Your task to perform on an android device: What's the weather going to be tomorrow? Image 0: 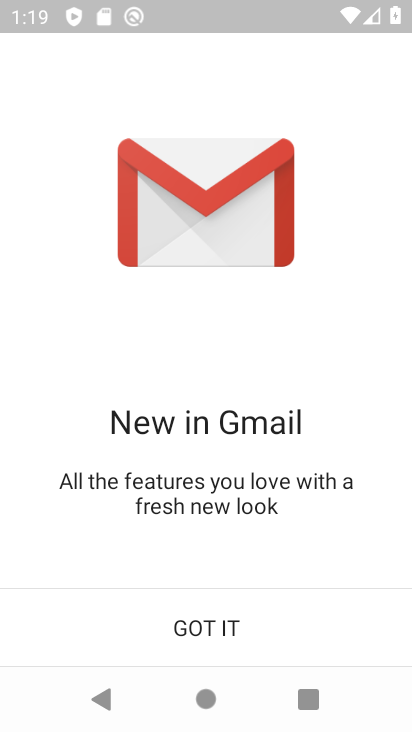
Step 0: click (172, 634)
Your task to perform on an android device: What's the weather going to be tomorrow? Image 1: 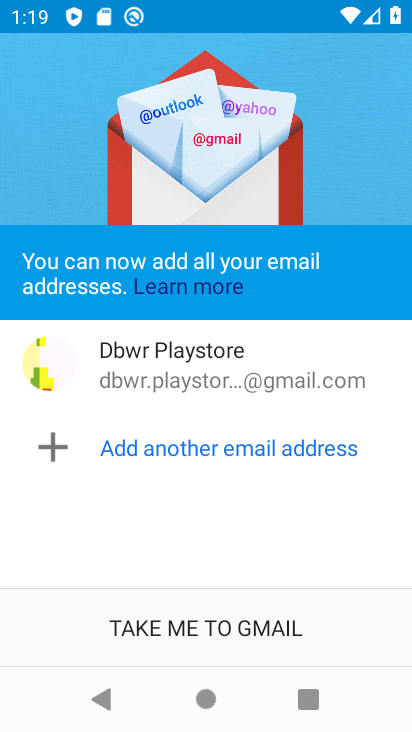
Step 1: click (294, 639)
Your task to perform on an android device: What's the weather going to be tomorrow? Image 2: 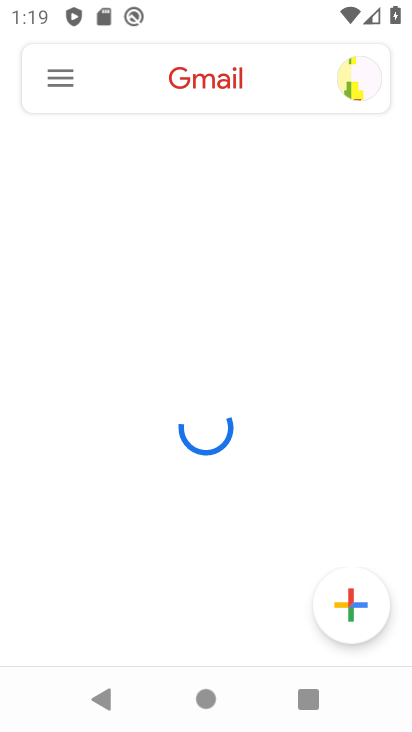
Step 2: press home button
Your task to perform on an android device: What's the weather going to be tomorrow? Image 3: 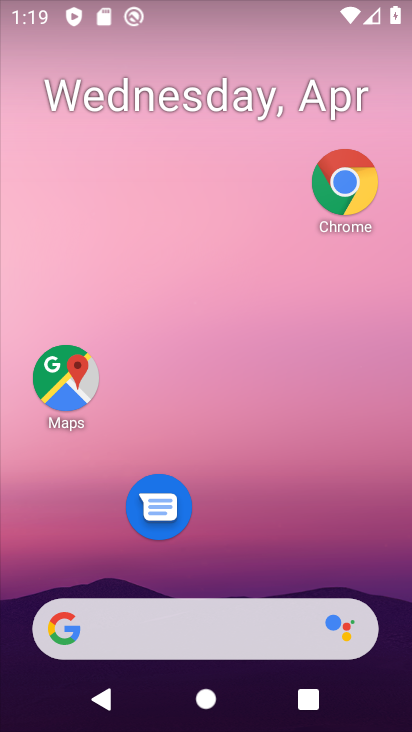
Step 3: click (274, 615)
Your task to perform on an android device: What's the weather going to be tomorrow? Image 4: 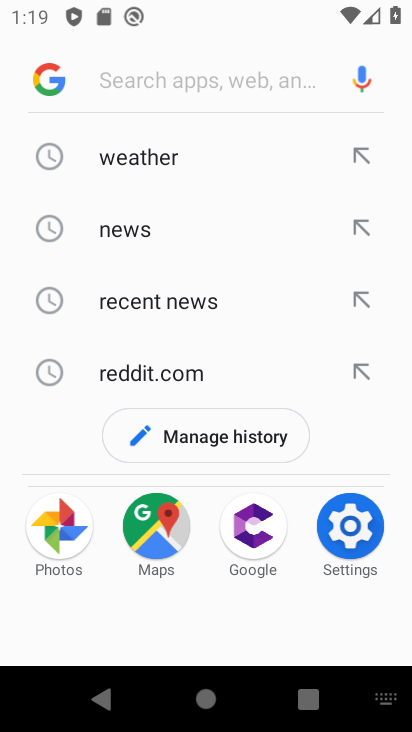
Step 4: click (213, 81)
Your task to perform on an android device: What's the weather going to be tomorrow? Image 5: 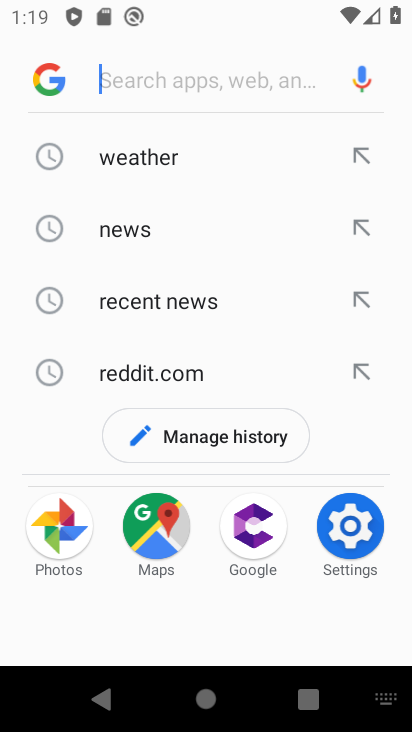
Step 5: click (213, 81)
Your task to perform on an android device: What's the weather going to be tomorrow? Image 6: 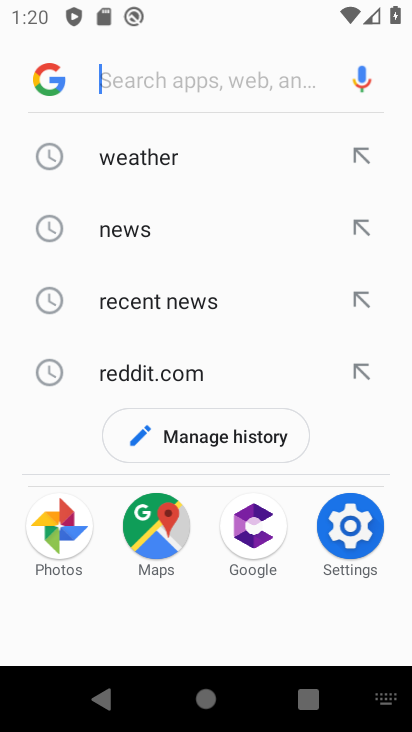
Step 6: click (196, 75)
Your task to perform on an android device: What's the weather going to be tomorrow? Image 7: 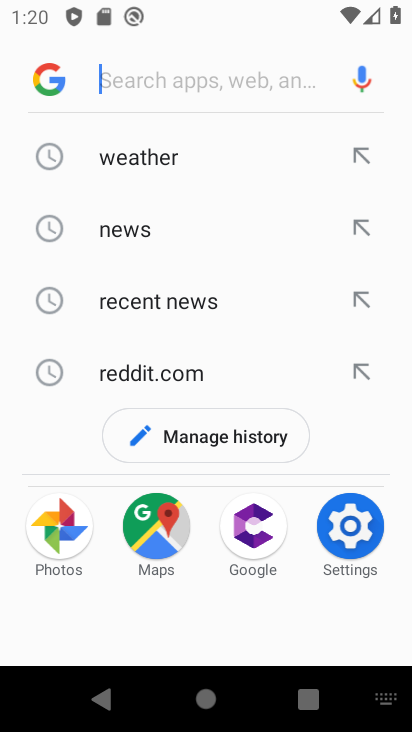
Step 7: click (196, 75)
Your task to perform on an android device: What's the weather going to be tomorrow? Image 8: 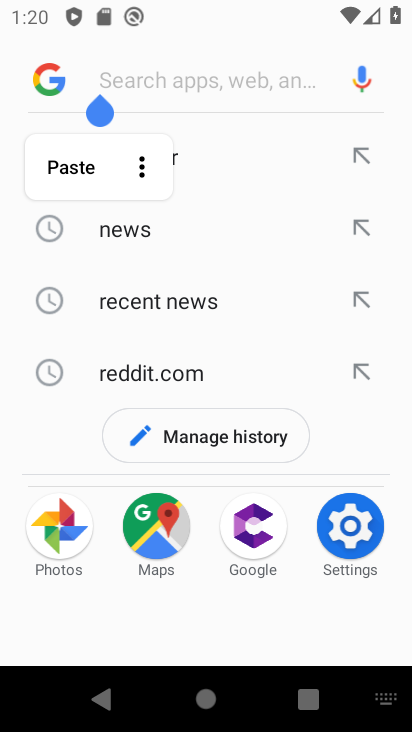
Step 8: click (51, 171)
Your task to perform on an android device: What's the weather going to be tomorrow? Image 9: 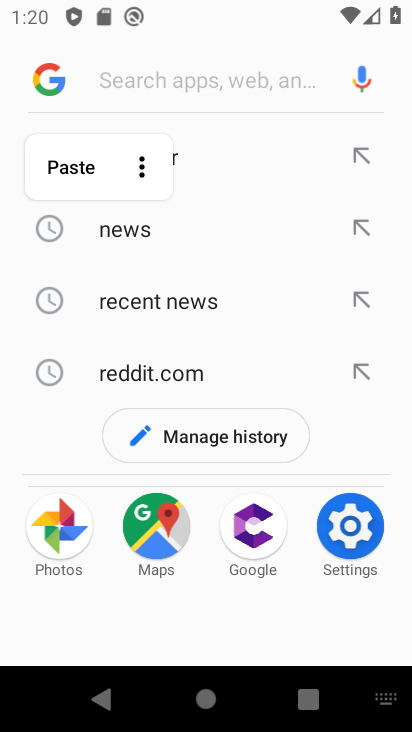
Step 9: type "What's the weather going to be tomorrow?"
Your task to perform on an android device: What's the weather going to be tomorrow? Image 10: 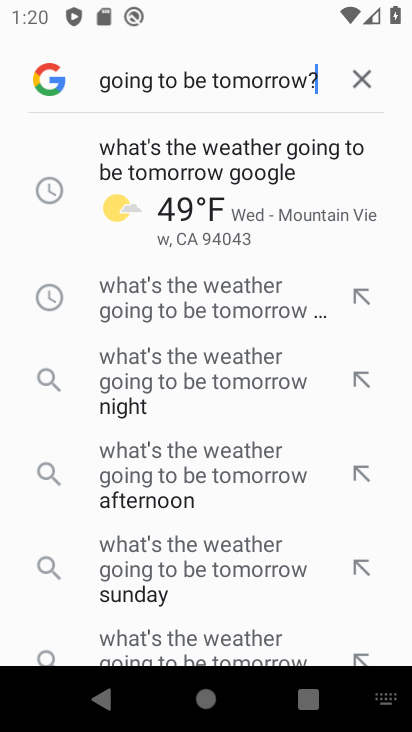
Step 10: click (236, 165)
Your task to perform on an android device: What's the weather going to be tomorrow? Image 11: 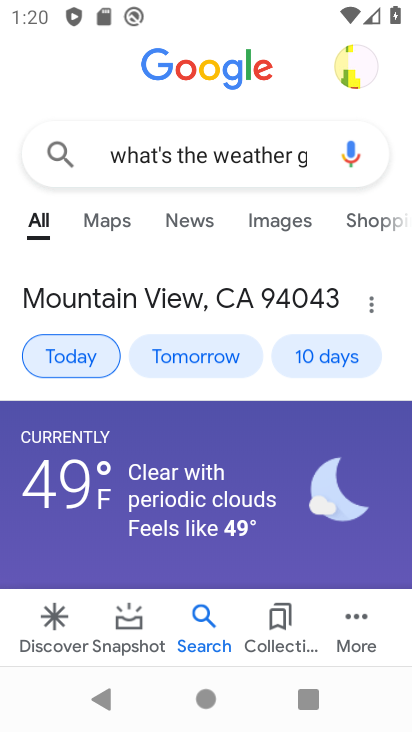
Step 11: task complete